Your task to perform on an android device: change notification settings in the gmail app Image 0: 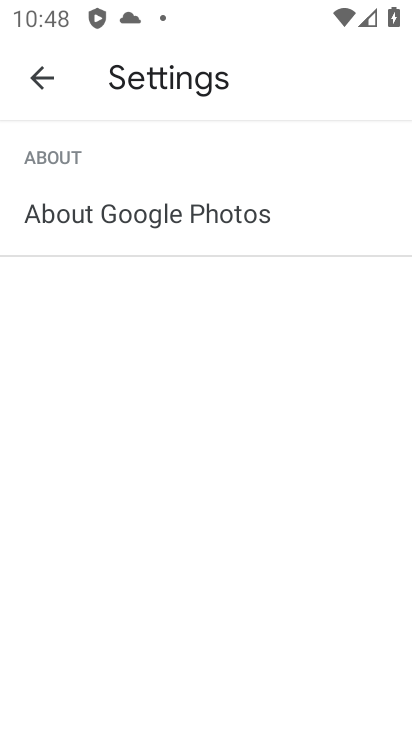
Step 0: press home button
Your task to perform on an android device: change notification settings in the gmail app Image 1: 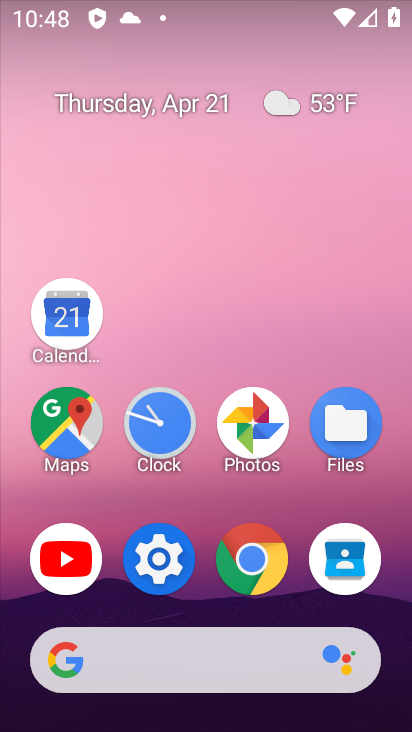
Step 1: drag from (184, 716) to (207, 74)
Your task to perform on an android device: change notification settings in the gmail app Image 2: 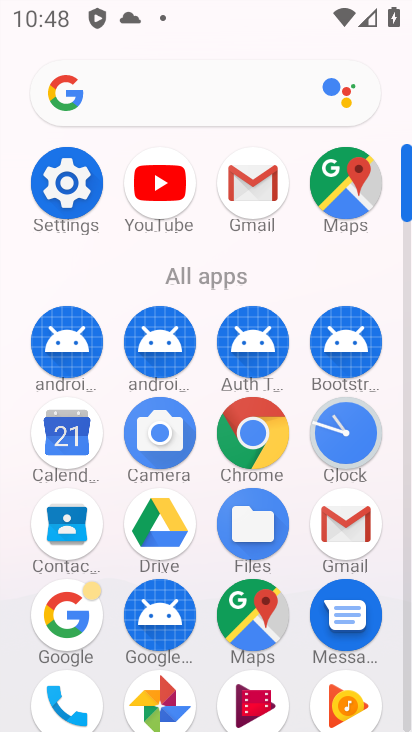
Step 2: click (341, 523)
Your task to perform on an android device: change notification settings in the gmail app Image 3: 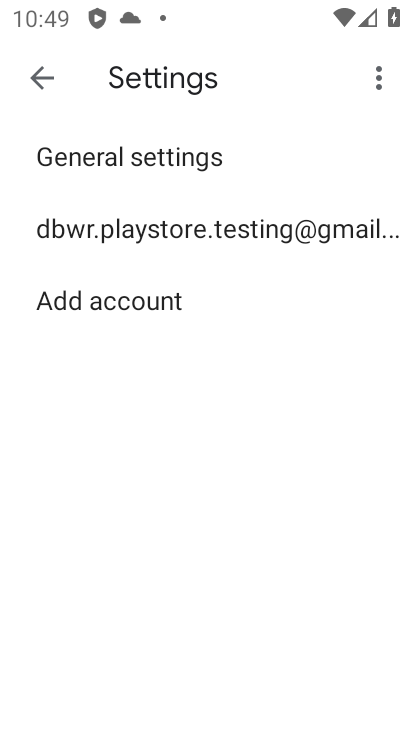
Step 3: click (111, 152)
Your task to perform on an android device: change notification settings in the gmail app Image 4: 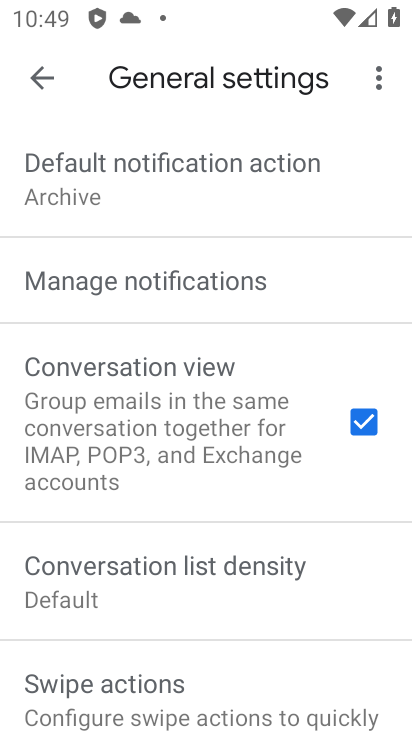
Step 4: click (153, 281)
Your task to perform on an android device: change notification settings in the gmail app Image 5: 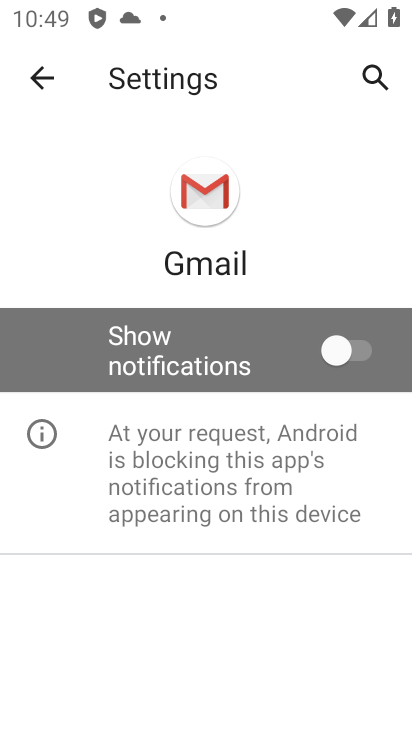
Step 5: click (335, 346)
Your task to perform on an android device: change notification settings in the gmail app Image 6: 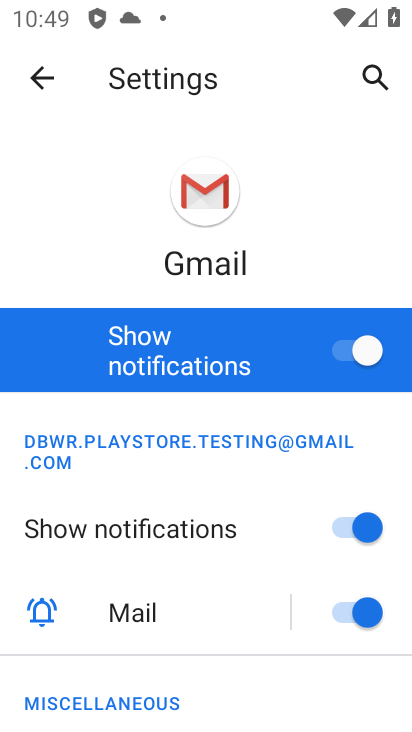
Step 6: task complete